Your task to perform on an android device: Open battery settings Image 0: 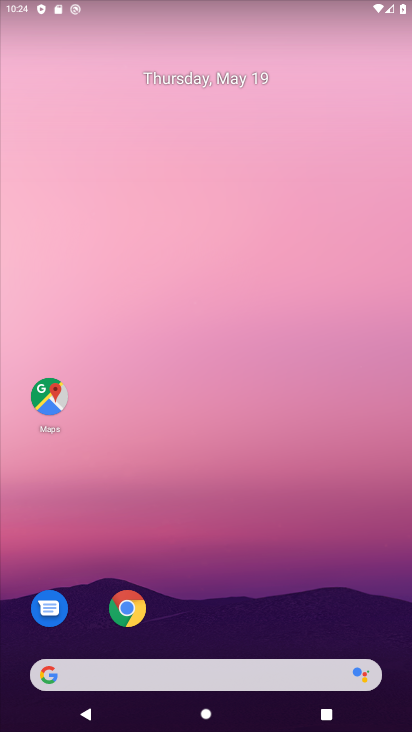
Step 0: drag from (398, 683) to (381, 168)
Your task to perform on an android device: Open battery settings Image 1: 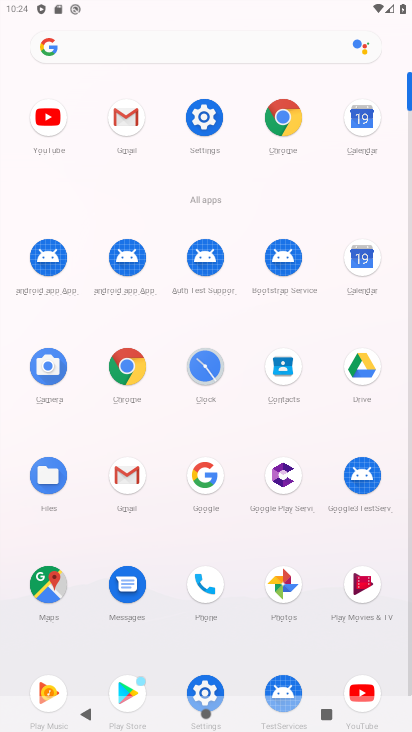
Step 1: click (195, 127)
Your task to perform on an android device: Open battery settings Image 2: 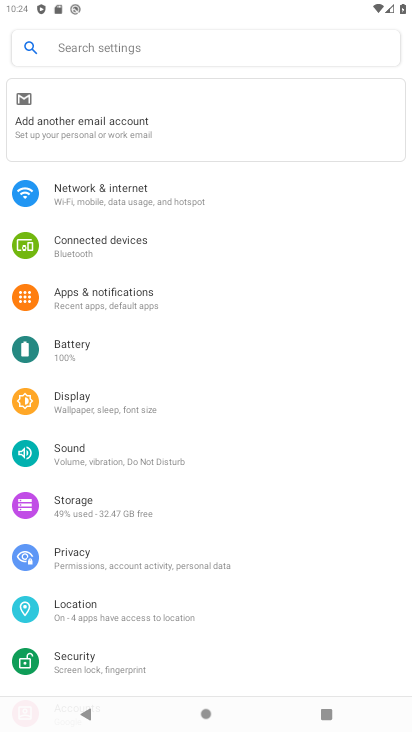
Step 2: click (65, 349)
Your task to perform on an android device: Open battery settings Image 3: 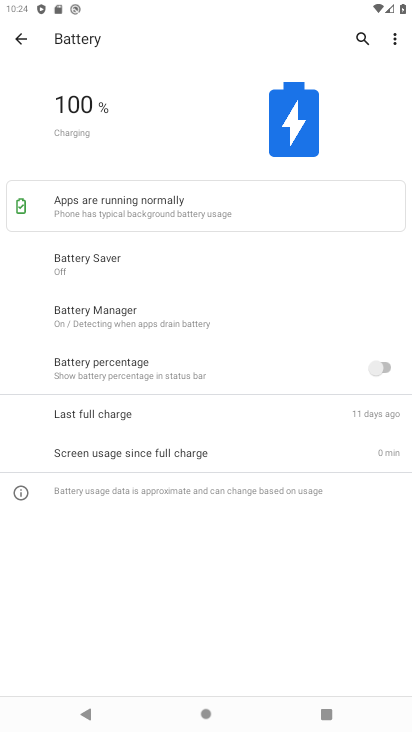
Step 3: click (389, 39)
Your task to perform on an android device: Open battery settings Image 4: 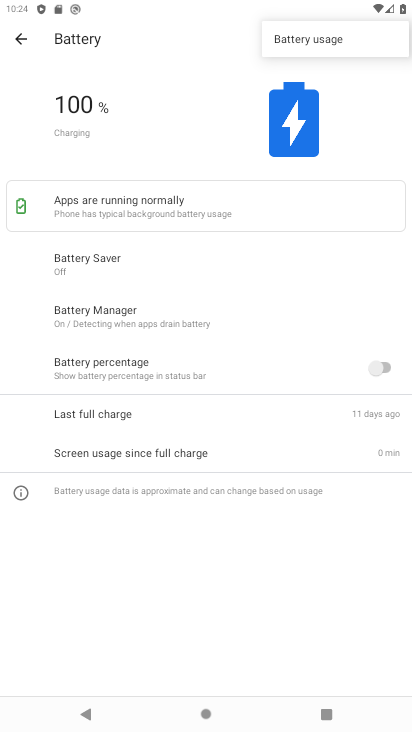
Step 4: click (204, 78)
Your task to perform on an android device: Open battery settings Image 5: 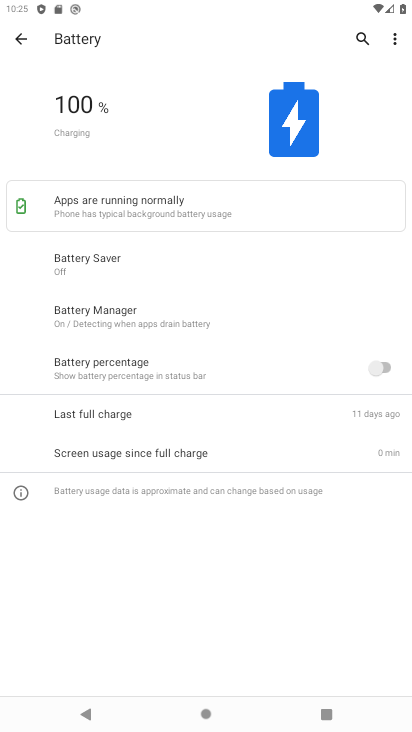
Step 5: task complete